Your task to perform on an android device: read, delete, or share a saved page in the chrome app Image 0: 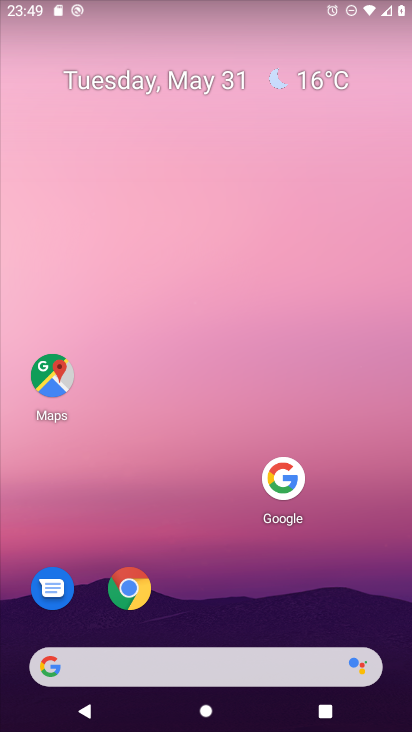
Step 0: press home button
Your task to perform on an android device: read, delete, or share a saved page in the chrome app Image 1: 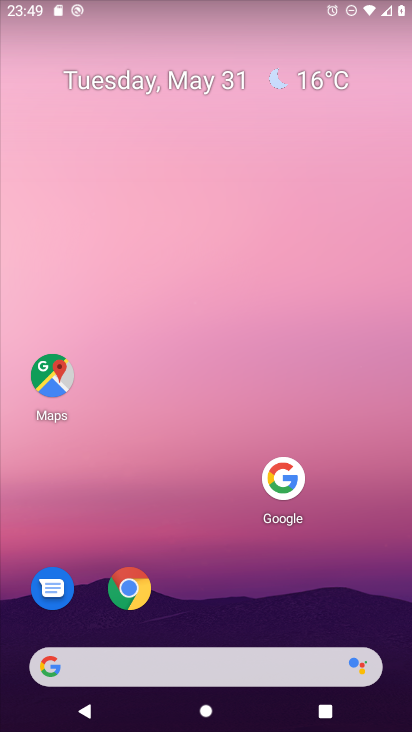
Step 1: click (128, 595)
Your task to perform on an android device: read, delete, or share a saved page in the chrome app Image 2: 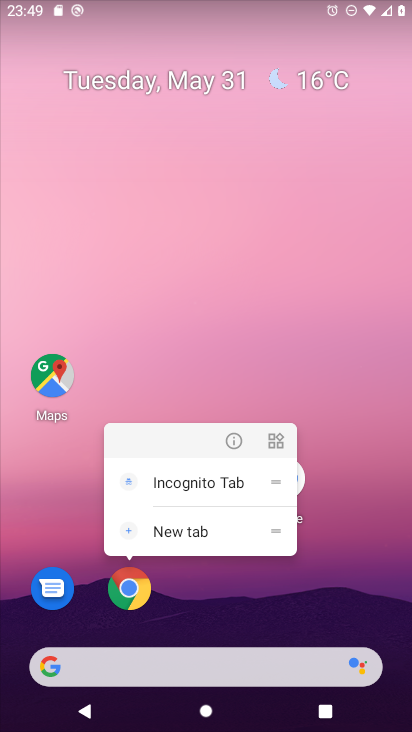
Step 2: click (129, 588)
Your task to perform on an android device: read, delete, or share a saved page in the chrome app Image 3: 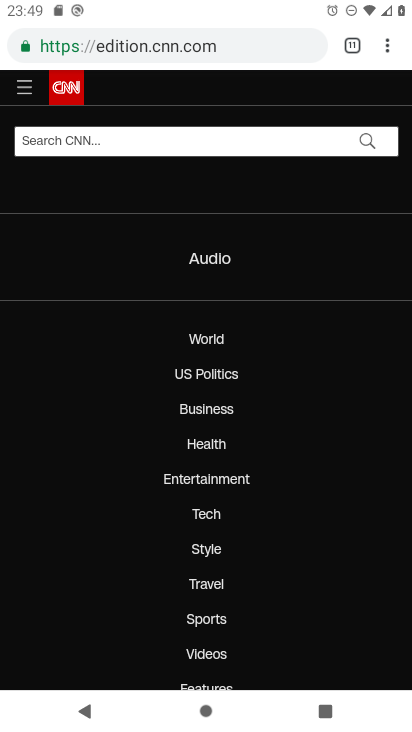
Step 3: drag from (387, 48) to (261, 302)
Your task to perform on an android device: read, delete, or share a saved page in the chrome app Image 4: 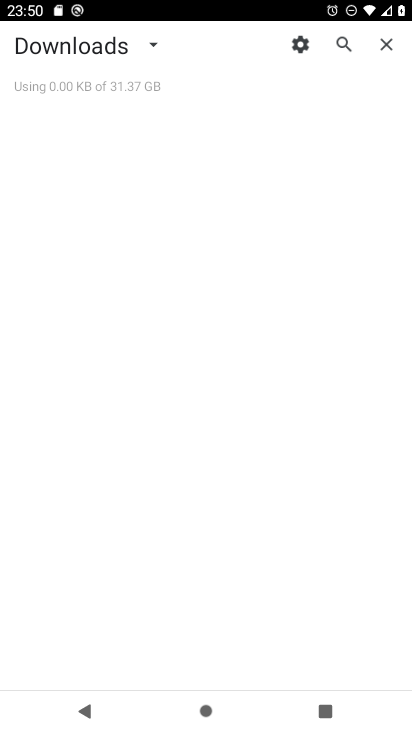
Step 4: click (153, 39)
Your task to perform on an android device: read, delete, or share a saved page in the chrome app Image 5: 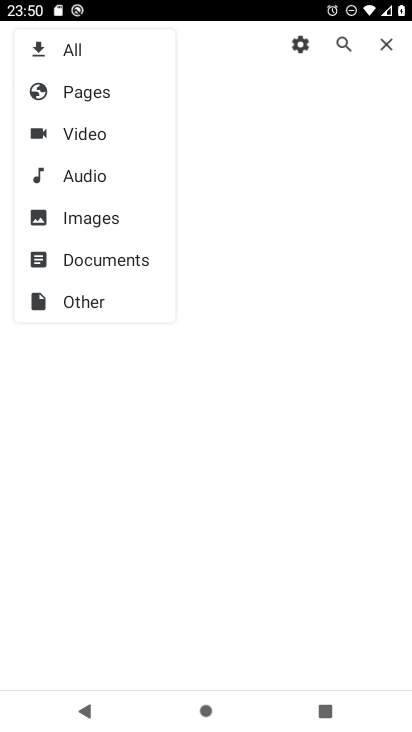
Step 5: click (104, 89)
Your task to perform on an android device: read, delete, or share a saved page in the chrome app Image 6: 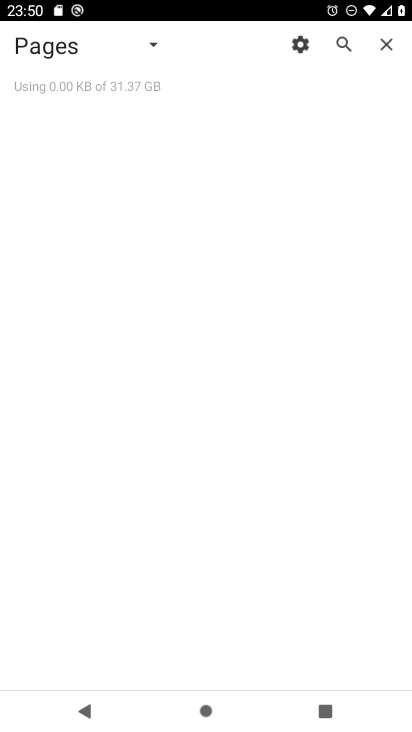
Step 6: task complete